Your task to perform on an android device: Search for sushi restaurants on Maps Image 0: 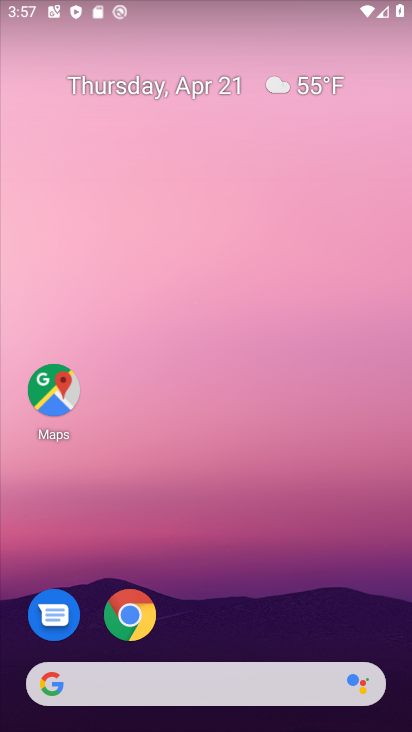
Step 0: drag from (349, 574) to (302, 20)
Your task to perform on an android device: Search for sushi restaurants on Maps Image 1: 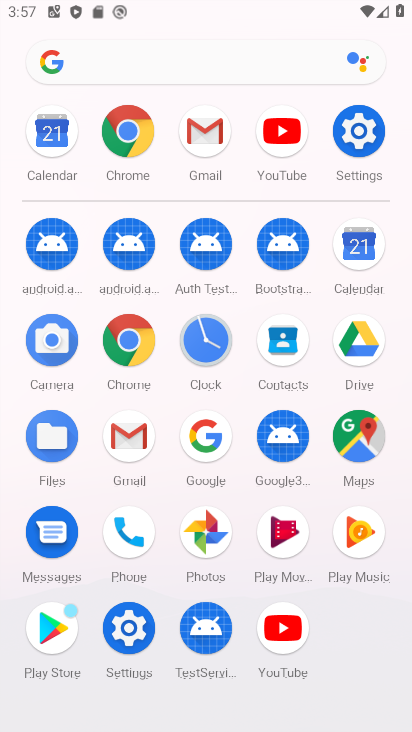
Step 1: click (355, 438)
Your task to perform on an android device: Search for sushi restaurants on Maps Image 2: 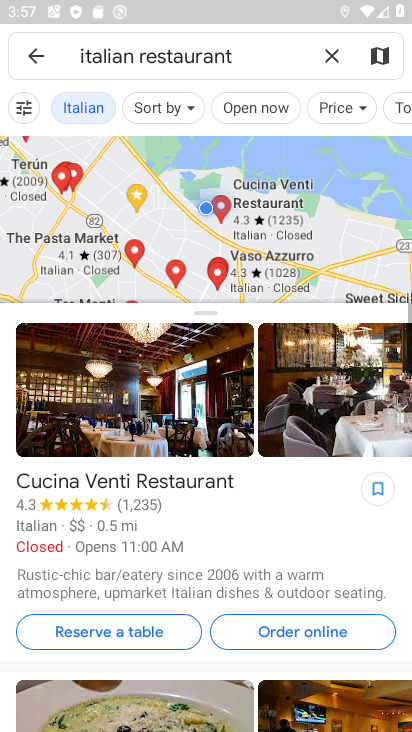
Step 2: click (329, 58)
Your task to perform on an android device: Search for sushi restaurants on Maps Image 3: 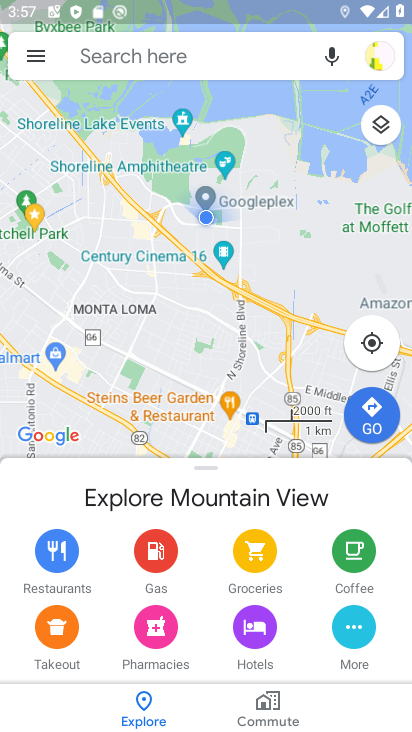
Step 3: click (259, 58)
Your task to perform on an android device: Search for sushi restaurants on Maps Image 4: 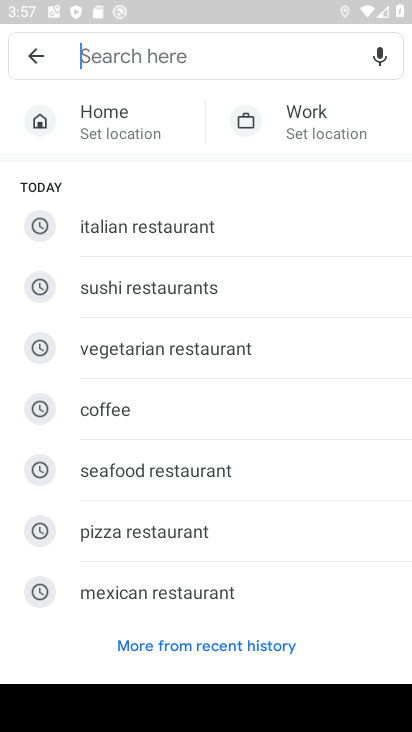
Step 4: click (158, 287)
Your task to perform on an android device: Search for sushi restaurants on Maps Image 5: 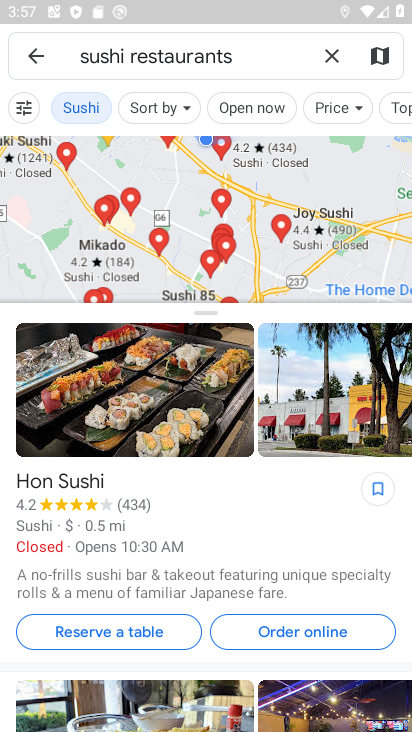
Step 5: task complete